Your task to perform on an android device: Empty the shopping cart on bestbuy. Search for "lenovo thinkpad" on bestbuy, select the first entry, add it to the cart, then select checkout. Image 0: 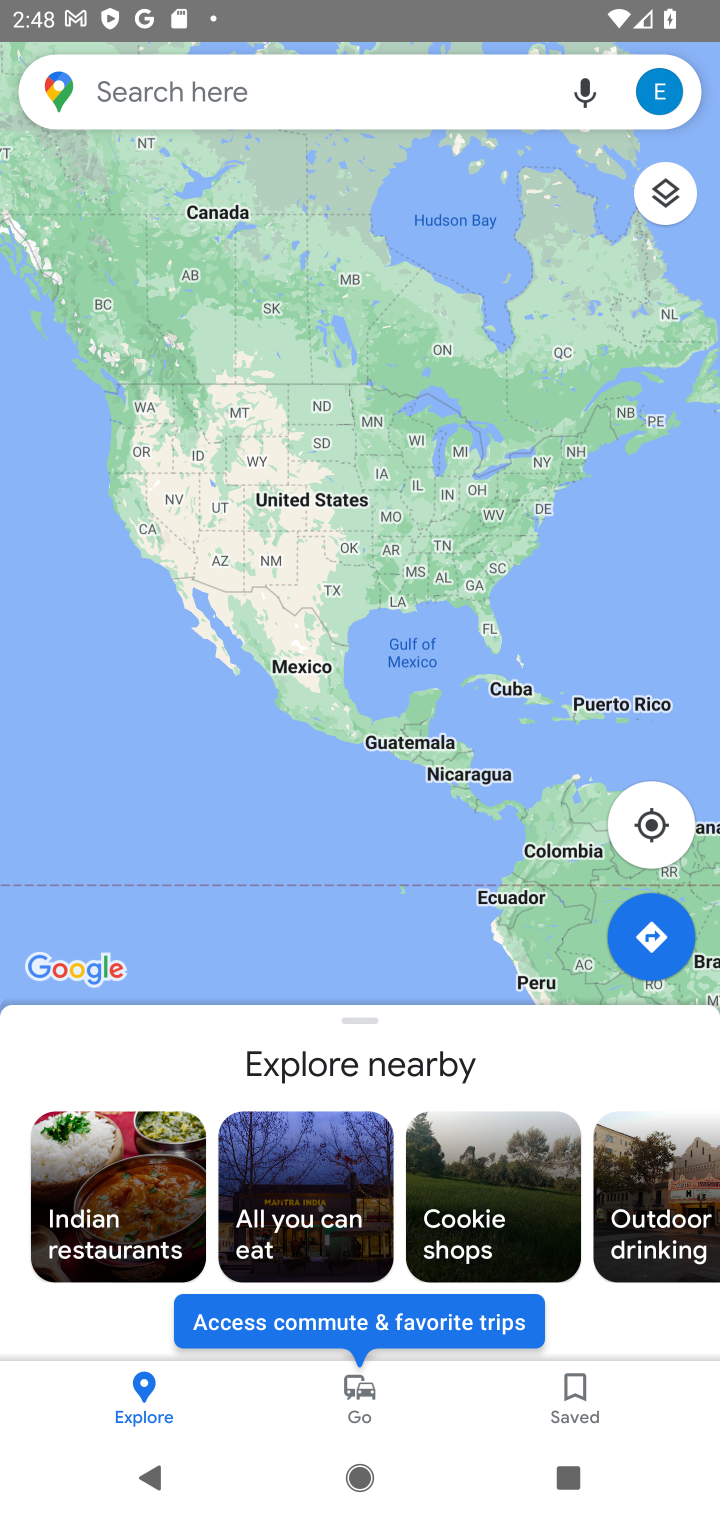
Step 0: press home button
Your task to perform on an android device: Empty the shopping cart on bestbuy. Search for "lenovo thinkpad" on bestbuy, select the first entry, add it to the cart, then select checkout. Image 1: 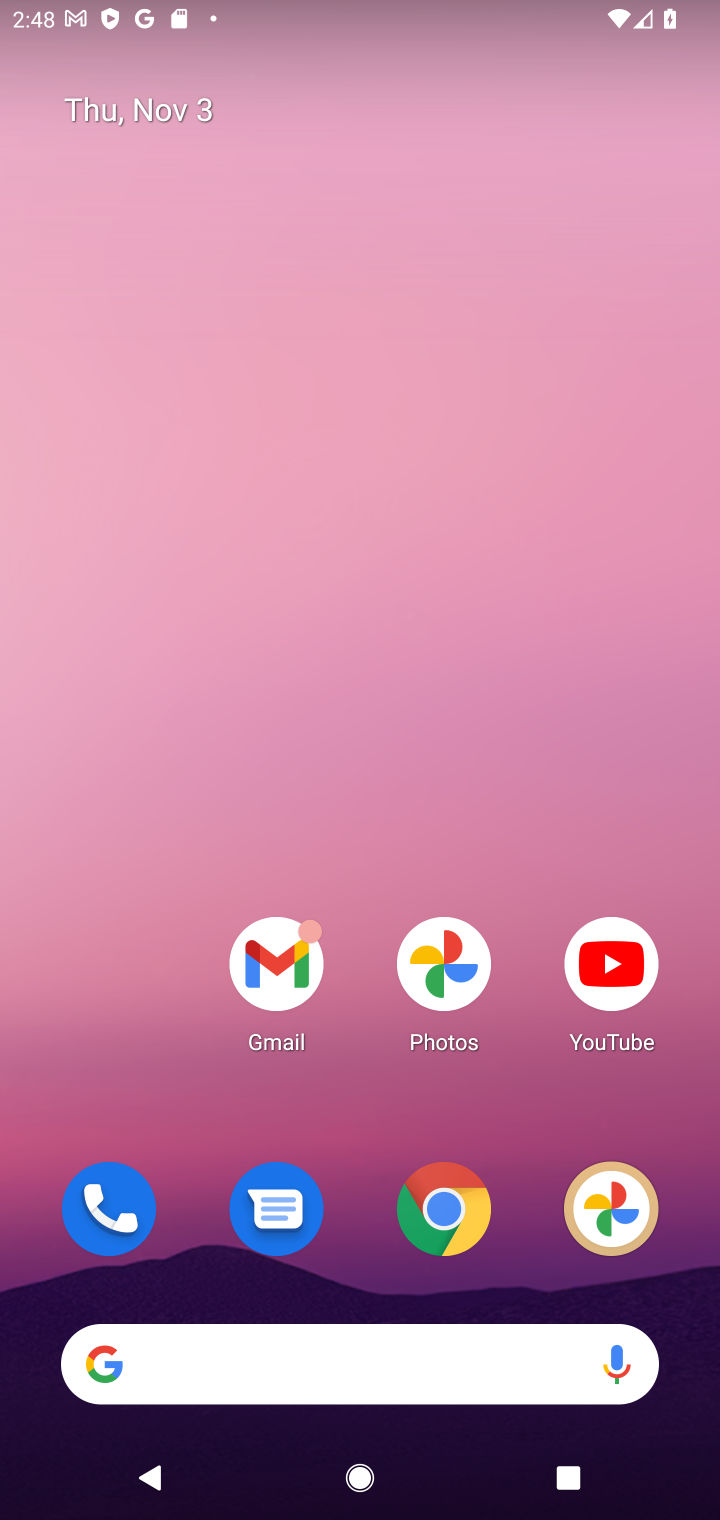
Step 1: click (386, 1247)
Your task to perform on an android device: Empty the shopping cart on bestbuy. Search for "lenovo thinkpad" on bestbuy, select the first entry, add it to the cart, then select checkout. Image 2: 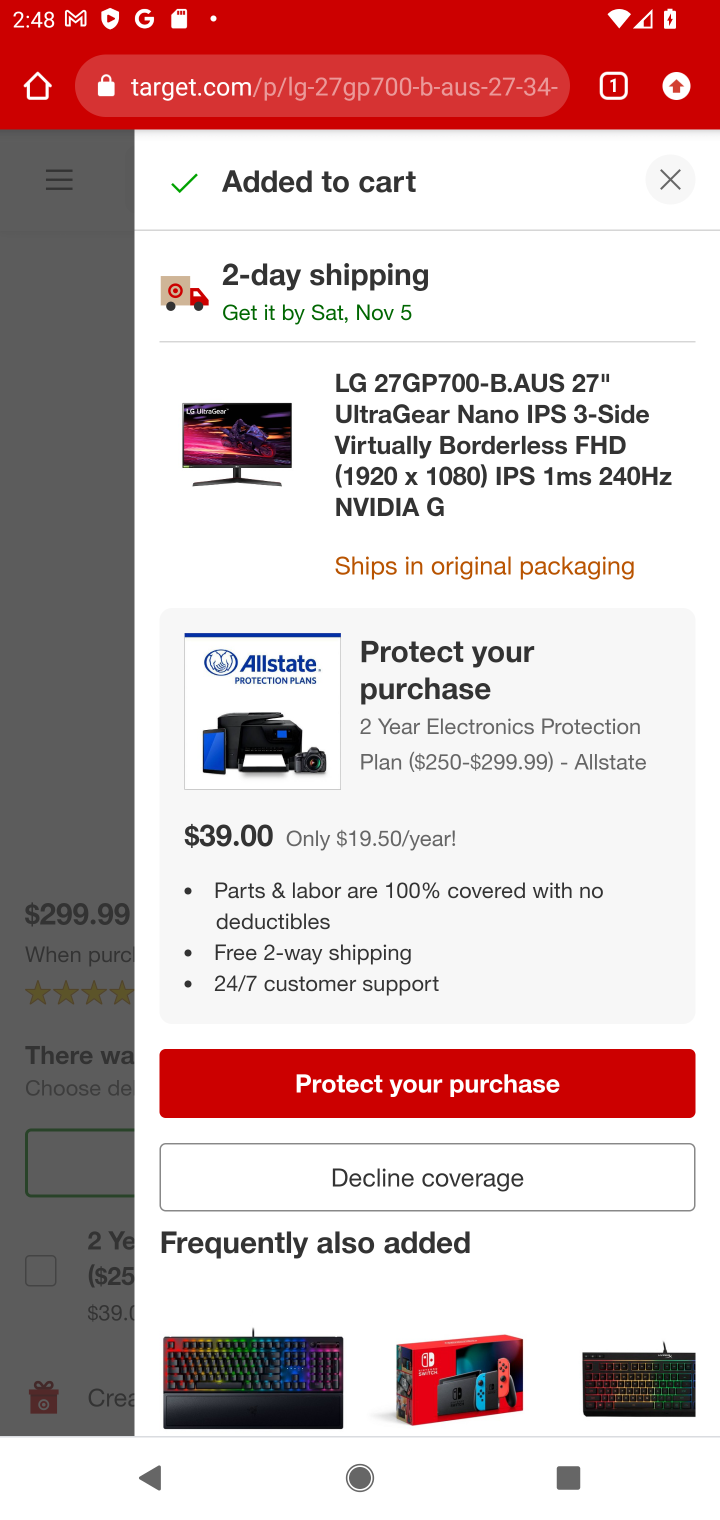
Step 2: click (390, 104)
Your task to perform on an android device: Empty the shopping cart on bestbuy. Search for "lenovo thinkpad" on bestbuy, select the first entry, add it to the cart, then select checkout. Image 3: 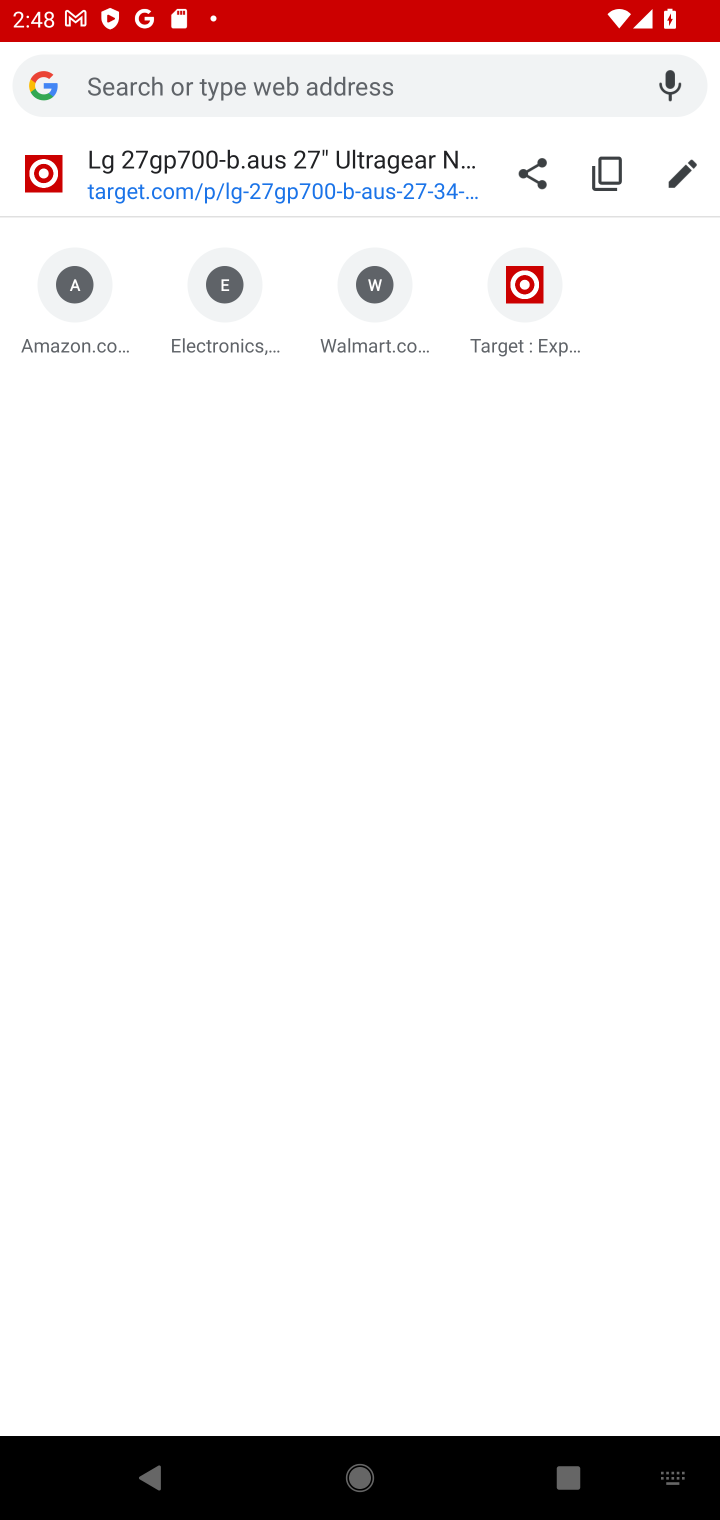
Step 3: type "bestbuy"
Your task to perform on an android device: Empty the shopping cart on bestbuy. Search for "lenovo thinkpad" on bestbuy, select the first entry, add it to the cart, then select checkout. Image 4: 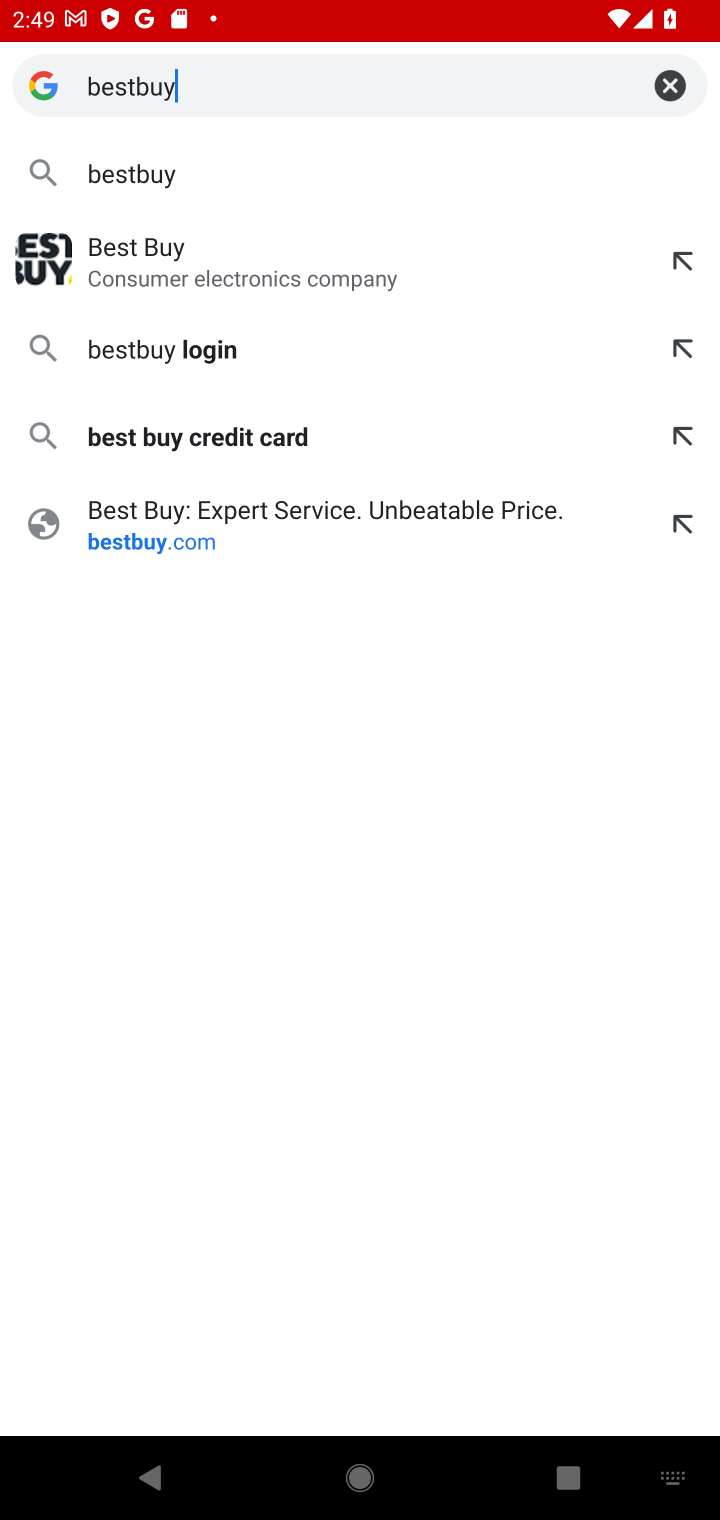
Step 4: click (337, 519)
Your task to perform on an android device: Empty the shopping cart on bestbuy. Search for "lenovo thinkpad" on bestbuy, select the first entry, add it to the cart, then select checkout. Image 5: 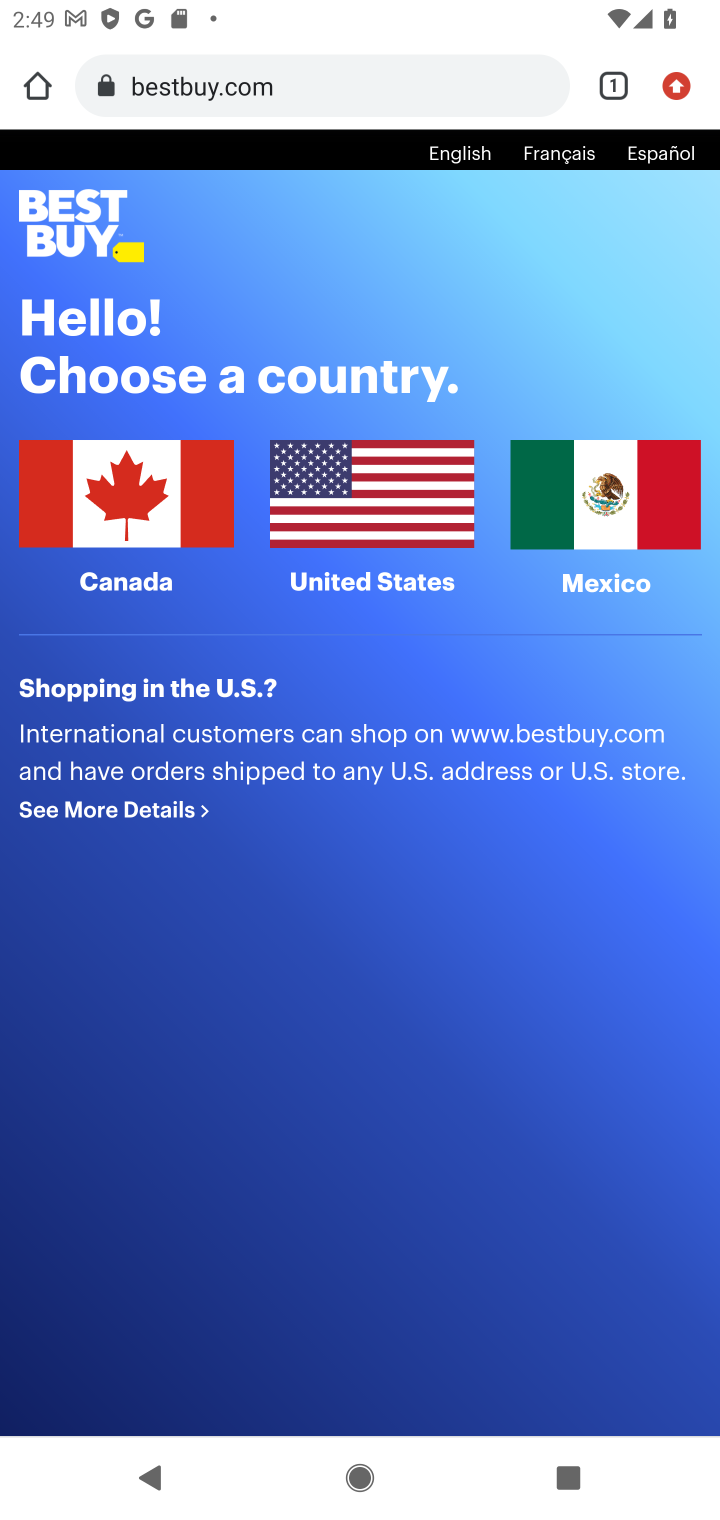
Step 5: click (316, 82)
Your task to perform on an android device: Empty the shopping cart on bestbuy. Search for "lenovo thinkpad" on bestbuy, select the first entry, add it to the cart, then select checkout. Image 6: 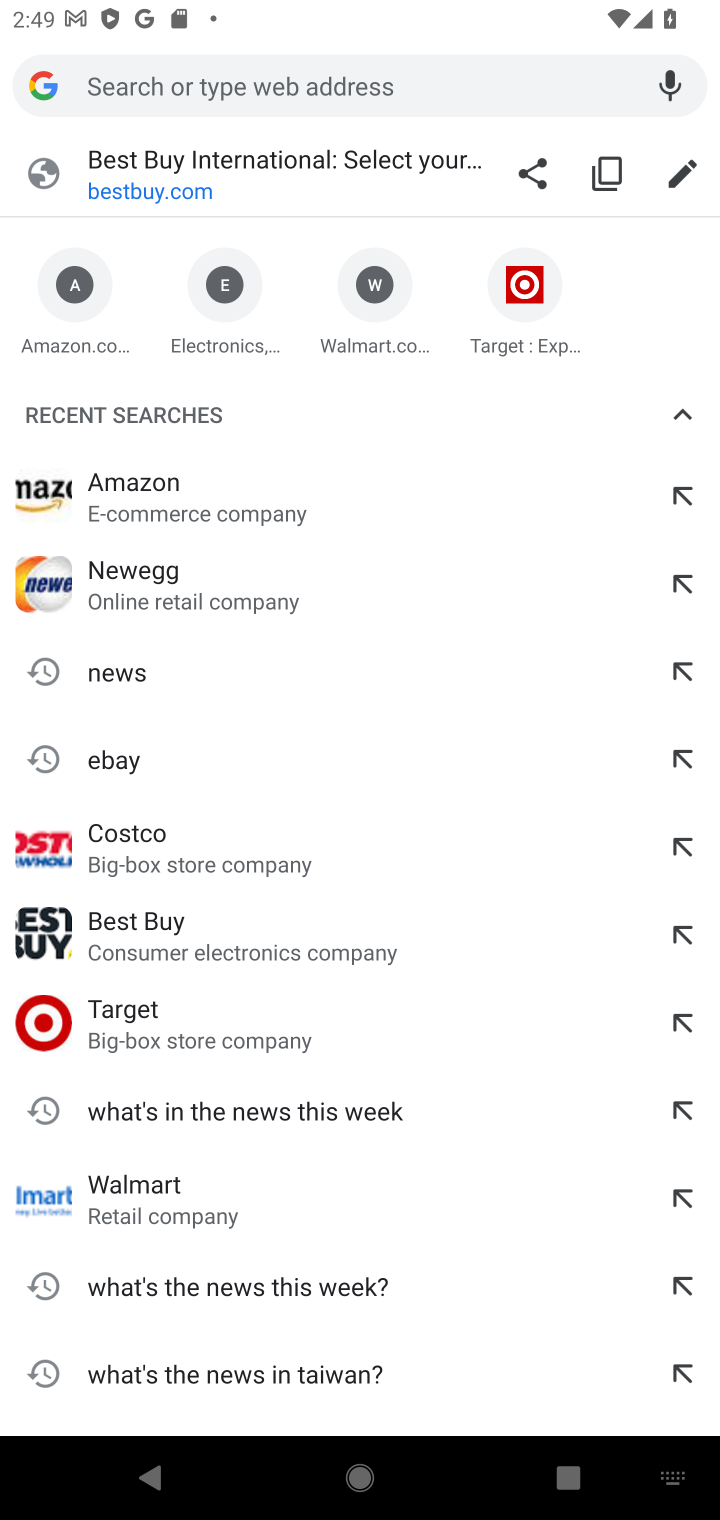
Step 6: click (208, 170)
Your task to perform on an android device: Empty the shopping cart on bestbuy. Search for "lenovo thinkpad" on bestbuy, select the first entry, add it to the cart, then select checkout. Image 7: 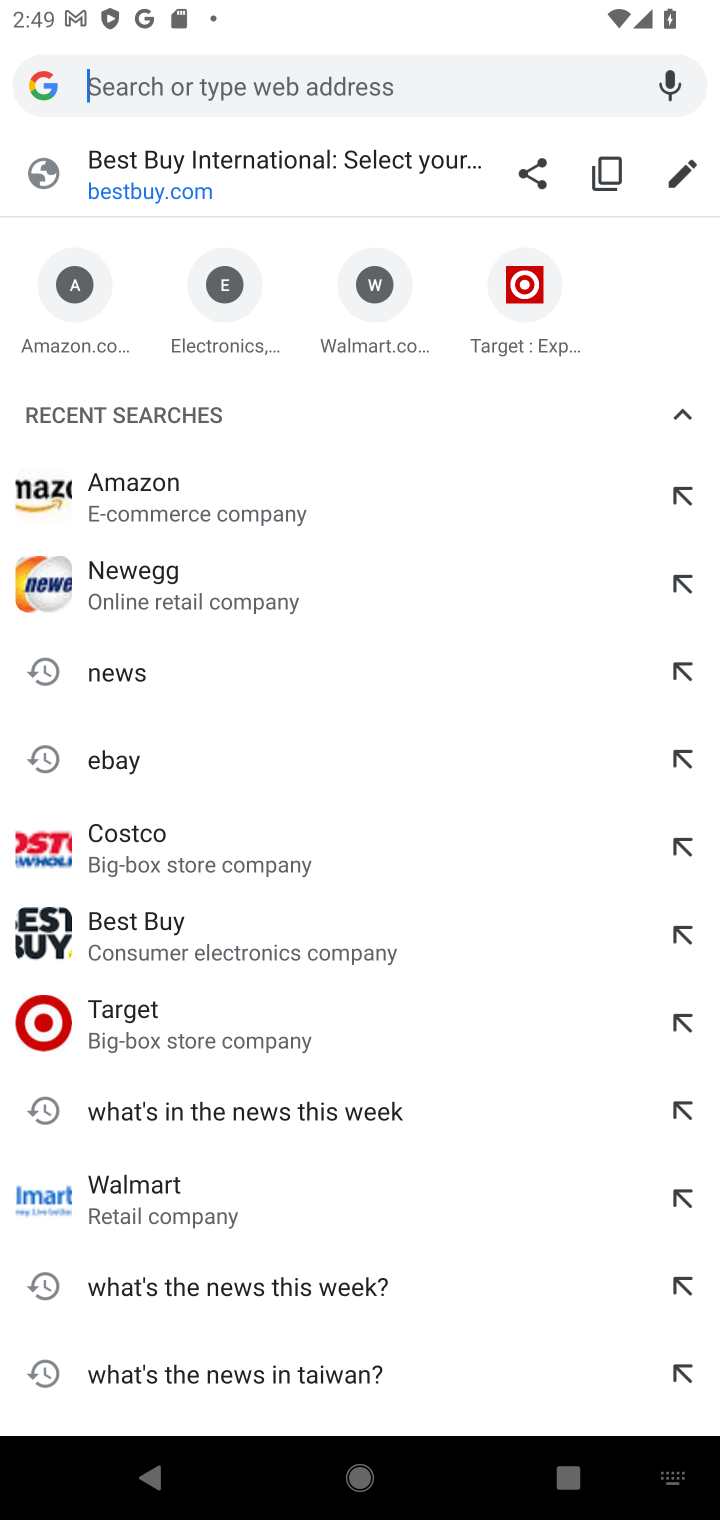
Step 7: click (189, 170)
Your task to perform on an android device: Empty the shopping cart on bestbuy. Search for "lenovo thinkpad" on bestbuy, select the first entry, add it to the cart, then select checkout. Image 8: 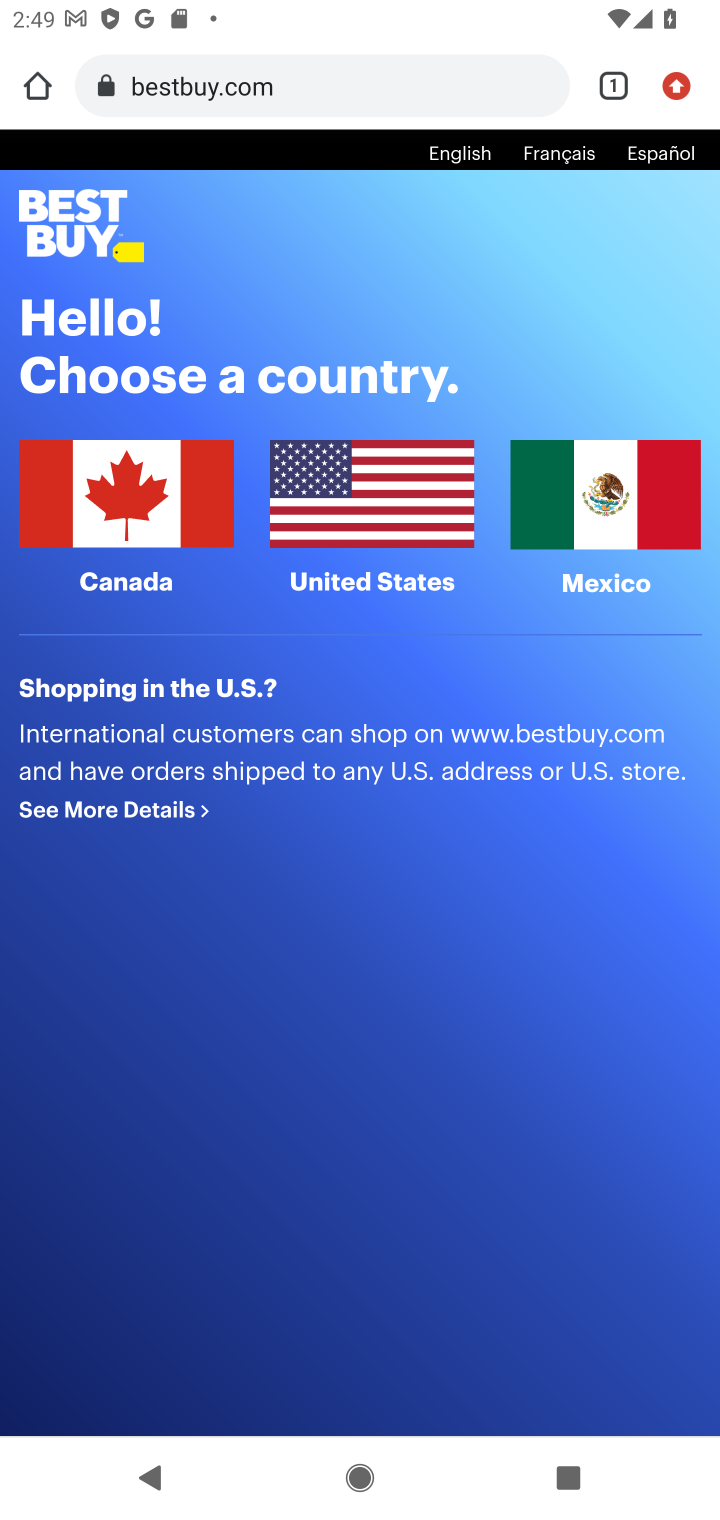
Step 8: click (337, 447)
Your task to perform on an android device: Empty the shopping cart on bestbuy. Search for "lenovo thinkpad" on bestbuy, select the first entry, add it to the cart, then select checkout. Image 9: 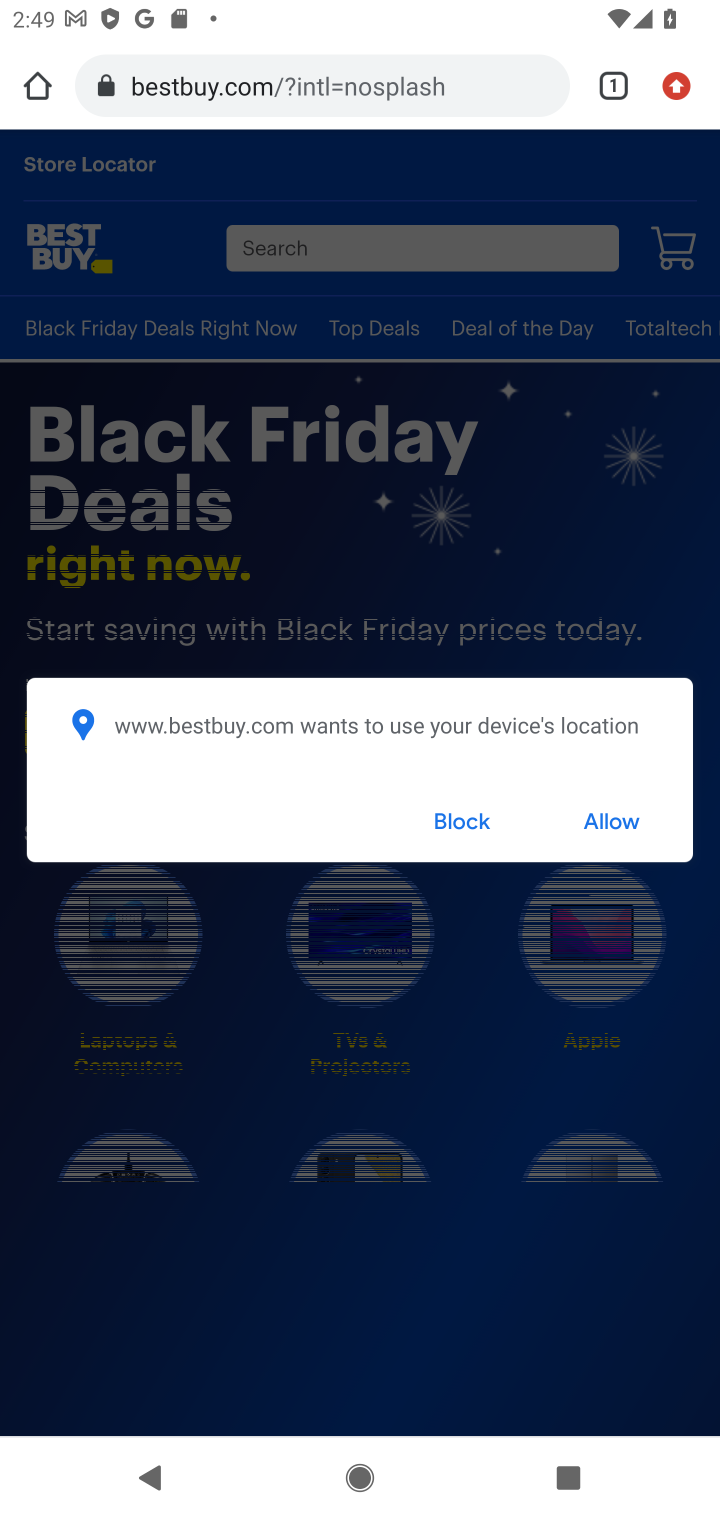
Step 9: click (612, 824)
Your task to perform on an android device: Empty the shopping cart on bestbuy. Search for "lenovo thinkpad" on bestbuy, select the first entry, add it to the cart, then select checkout. Image 10: 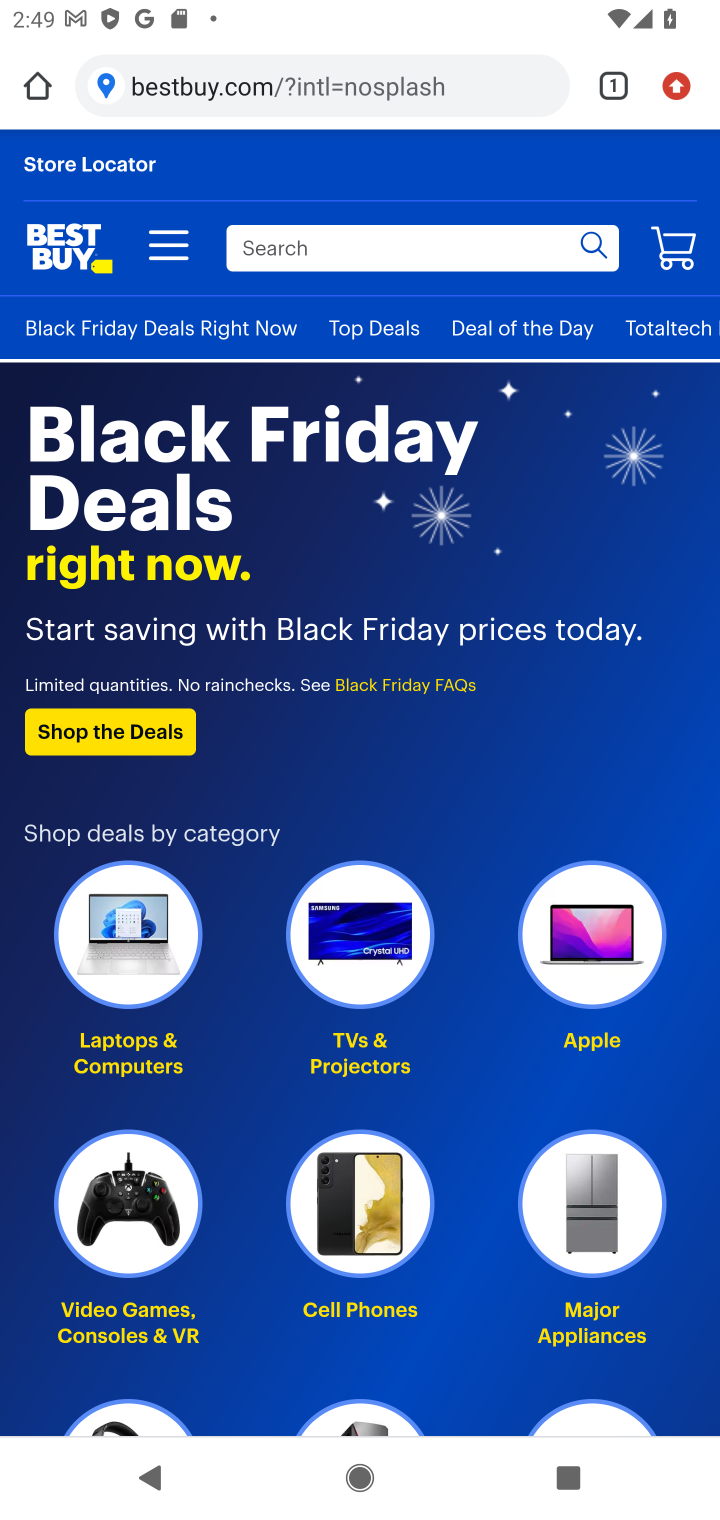
Step 10: click (367, 246)
Your task to perform on an android device: Empty the shopping cart on bestbuy. Search for "lenovo thinkpad" on bestbuy, select the first entry, add it to the cart, then select checkout. Image 11: 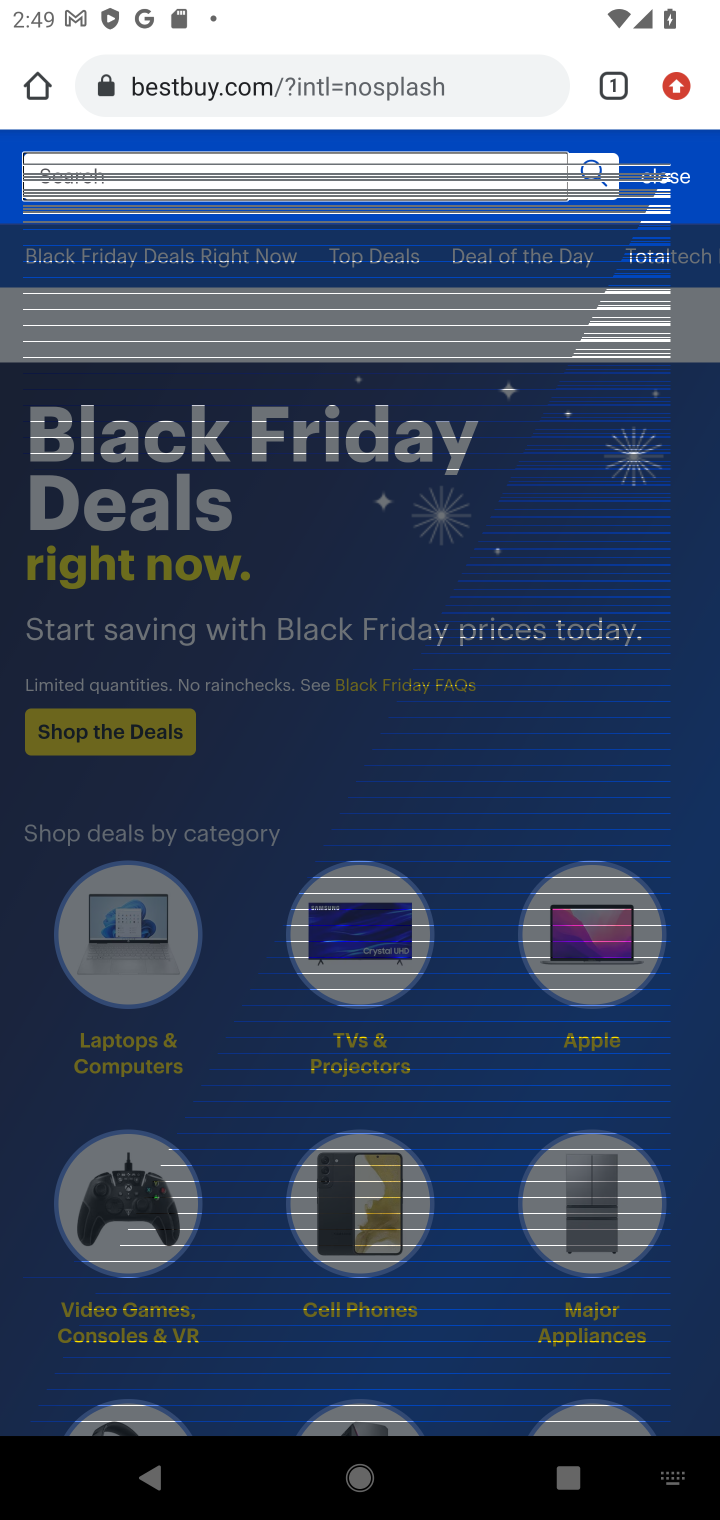
Step 11: type "lenovo thinkpad"
Your task to perform on an android device: Empty the shopping cart on bestbuy. Search for "lenovo thinkpad" on bestbuy, select the first entry, add it to the cart, then select checkout. Image 12: 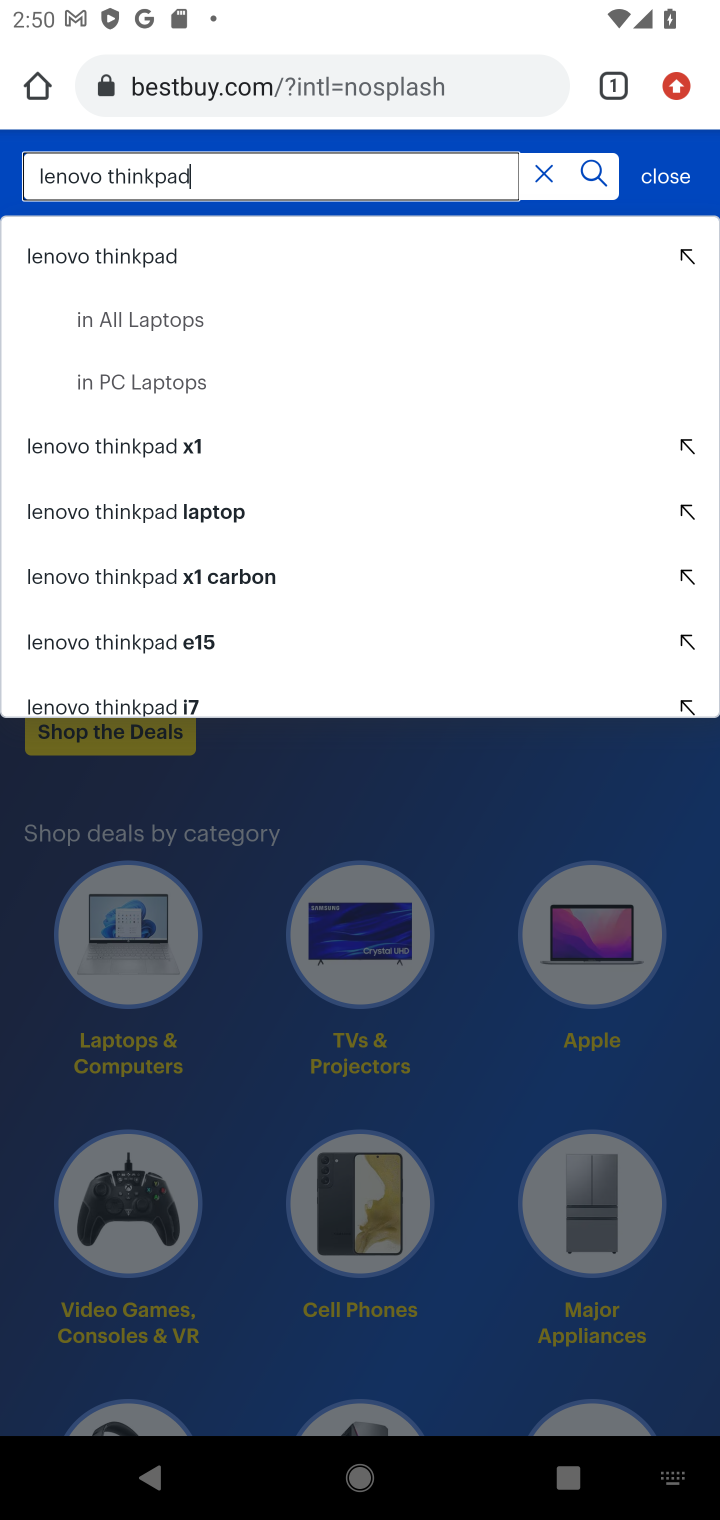
Step 12: press enter
Your task to perform on an android device: Empty the shopping cart on bestbuy. Search for "lenovo thinkpad" on bestbuy, select the first entry, add it to the cart, then select checkout. Image 13: 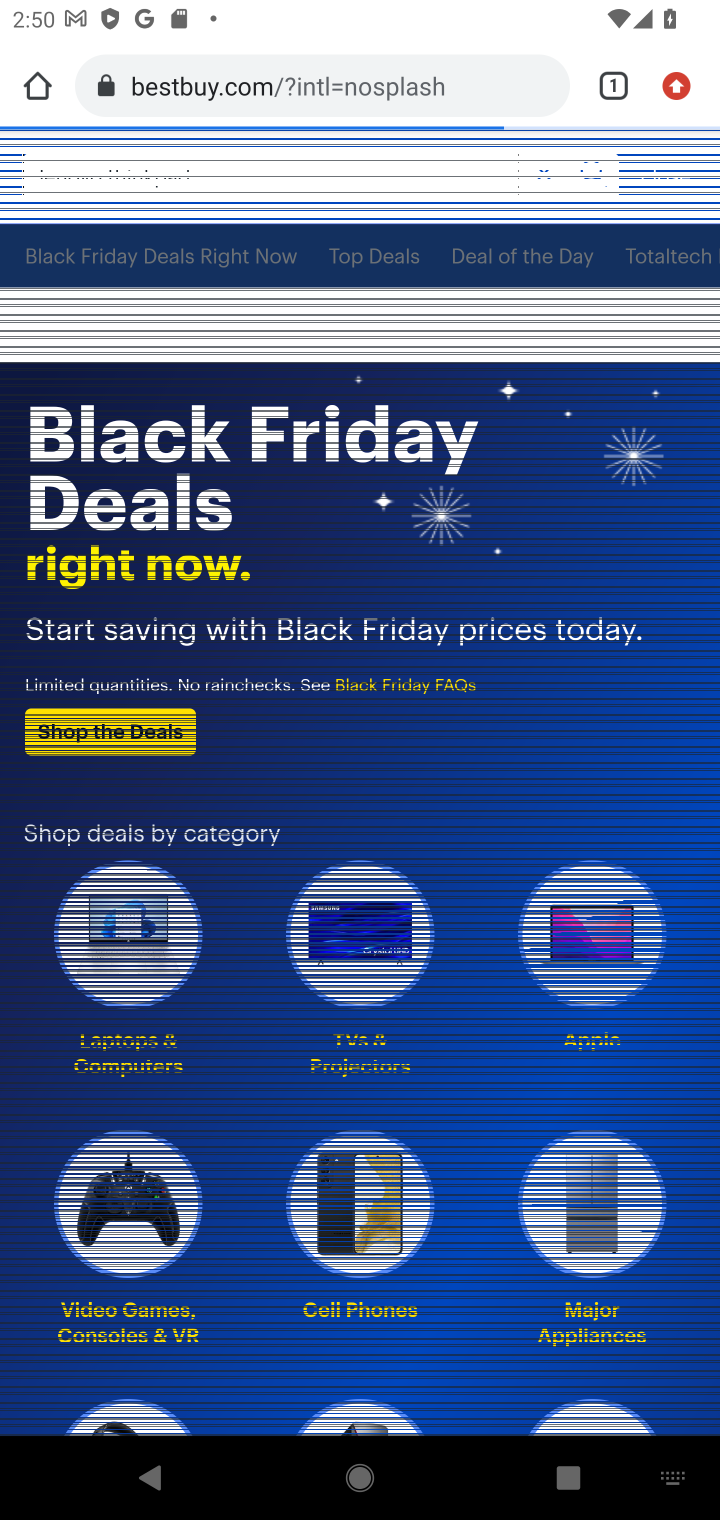
Step 13: press enter
Your task to perform on an android device: Empty the shopping cart on bestbuy. Search for "lenovo thinkpad" on bestbuy, select the first entry, add it to the cart, then select checkout. Image 14: 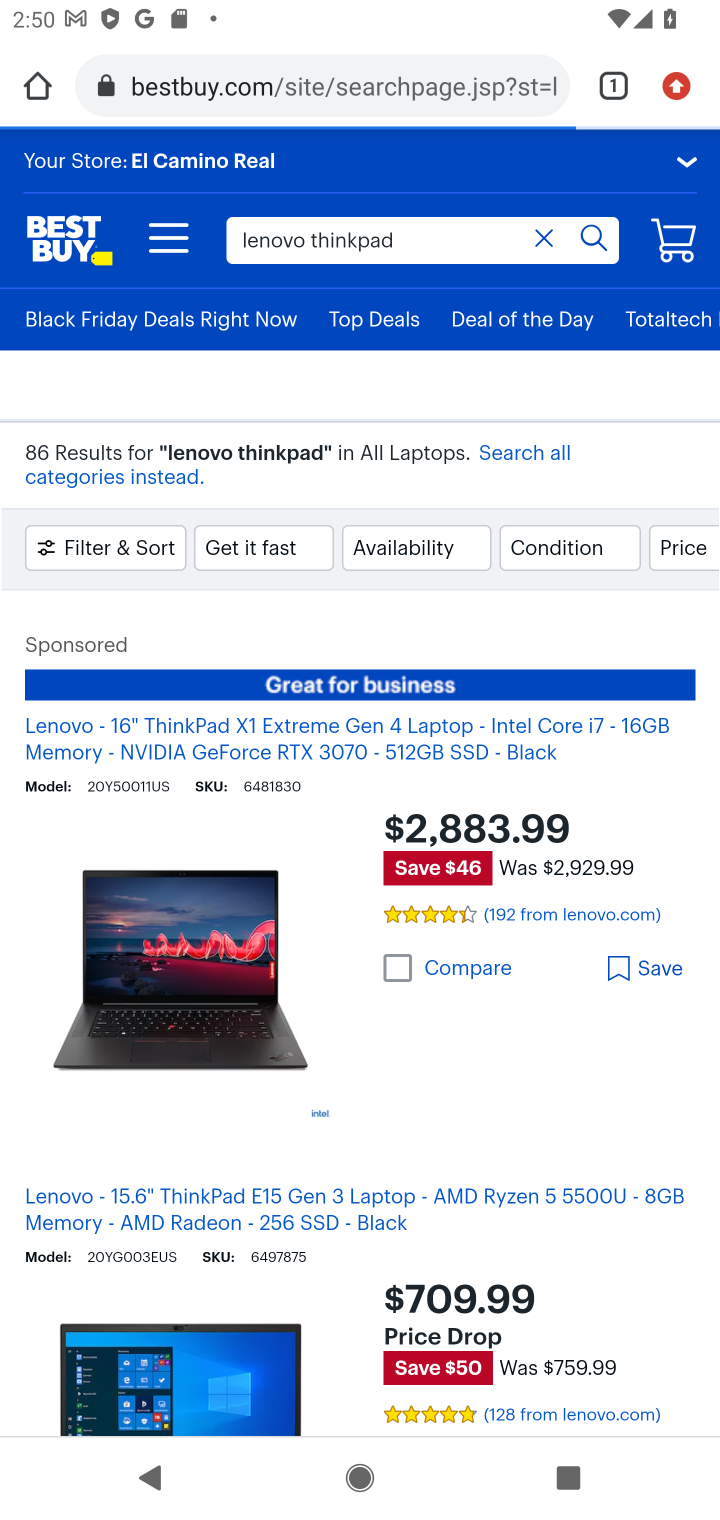
Step 14: click (356, 946)
Your task to perform on an android device: Empty the shopping cart on bestbuy. Search for "lenovo thinkpad" on bestbuy, select the first entry, add it to the cart, then select checkout. Image 15: 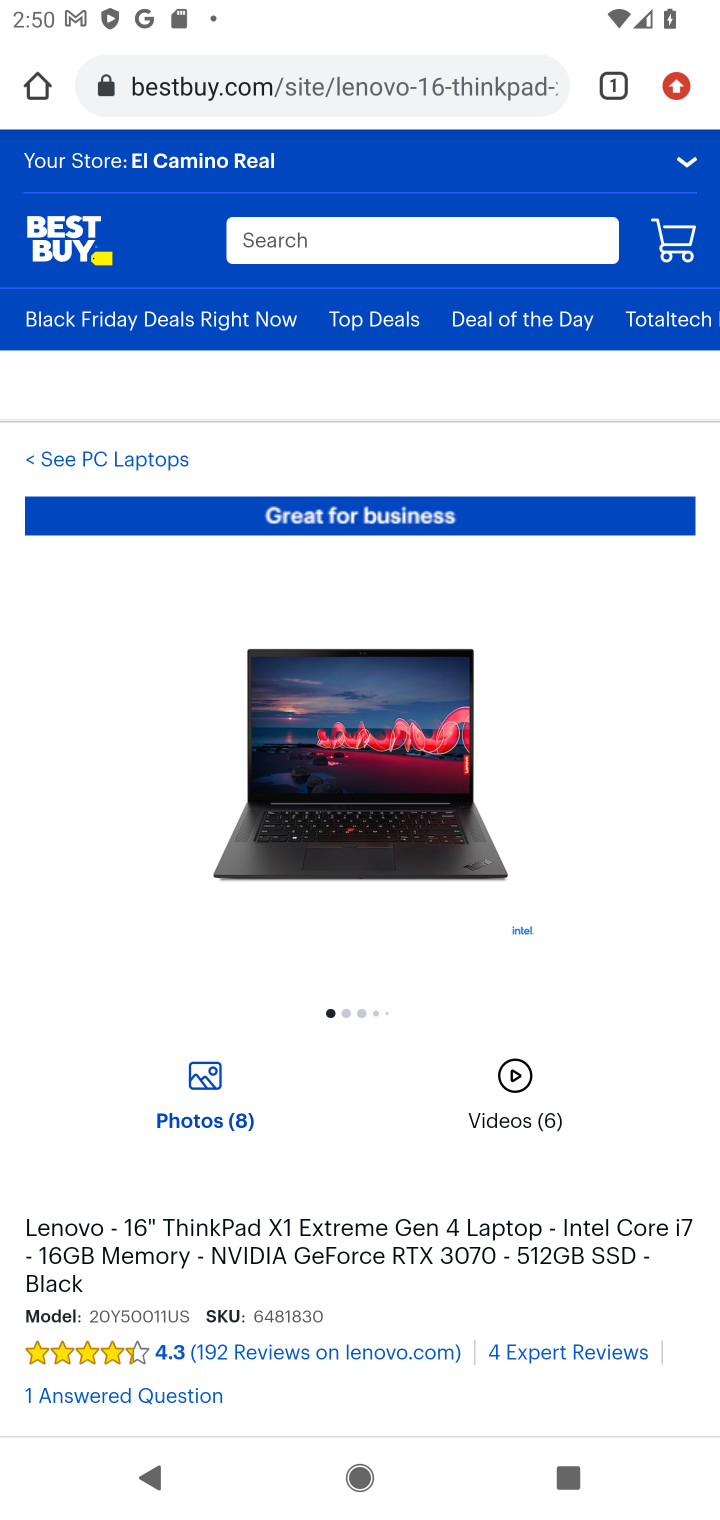
Step 15: drag from (604, 1351) to (460, 413)
Your task to perform on an android device: Empty the shopping cart on bestbuy. Search for "lenovo thinkpad" on bestbuy, select the first entry, add it to the cart, then select checkout. Image 16: 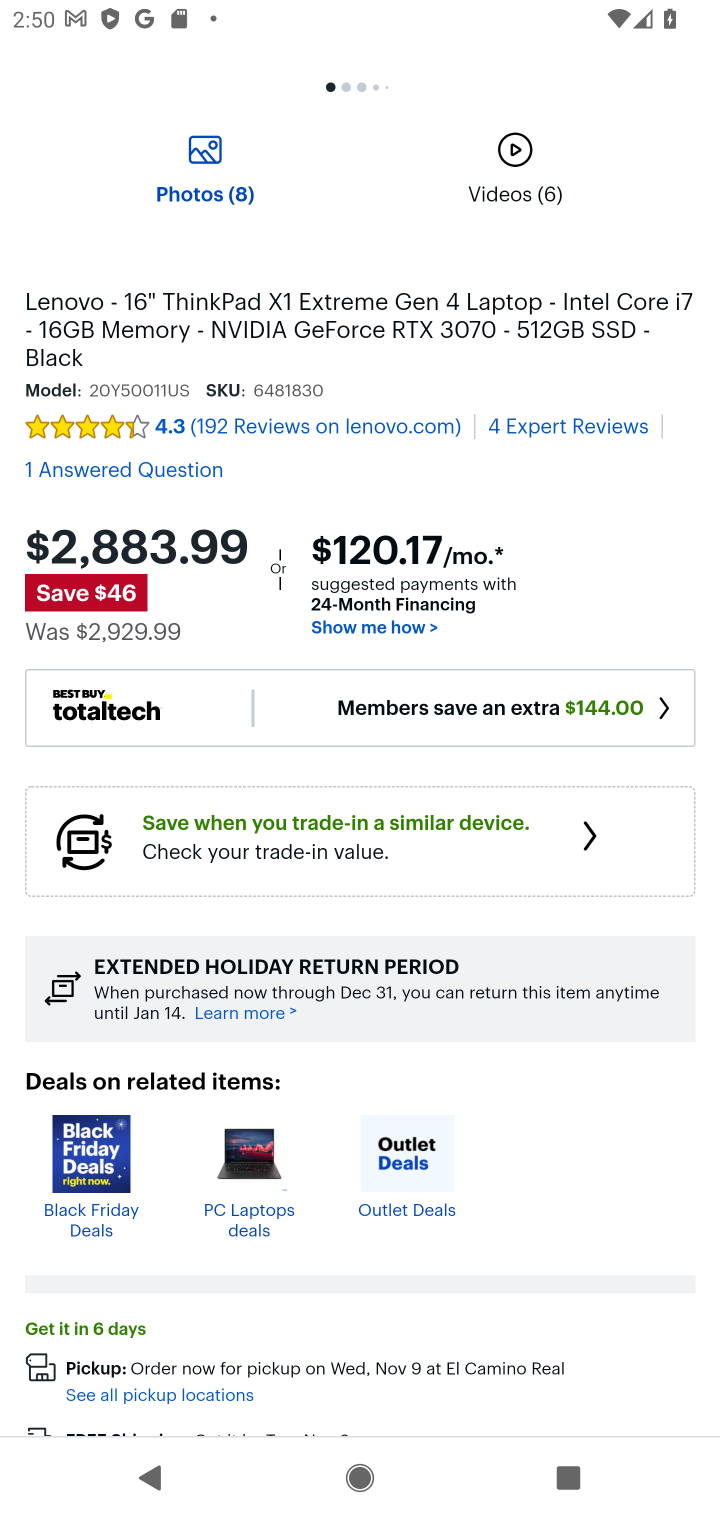
Step 16: drag from (560, 1317) to (466, 291)
Your task to perform on an android device: Empty the shopping cart on bestbuy. Search for "lenovo thinkpad" on bestbuy, select the first entry, add it to the cart, then select checkout. Image 17: 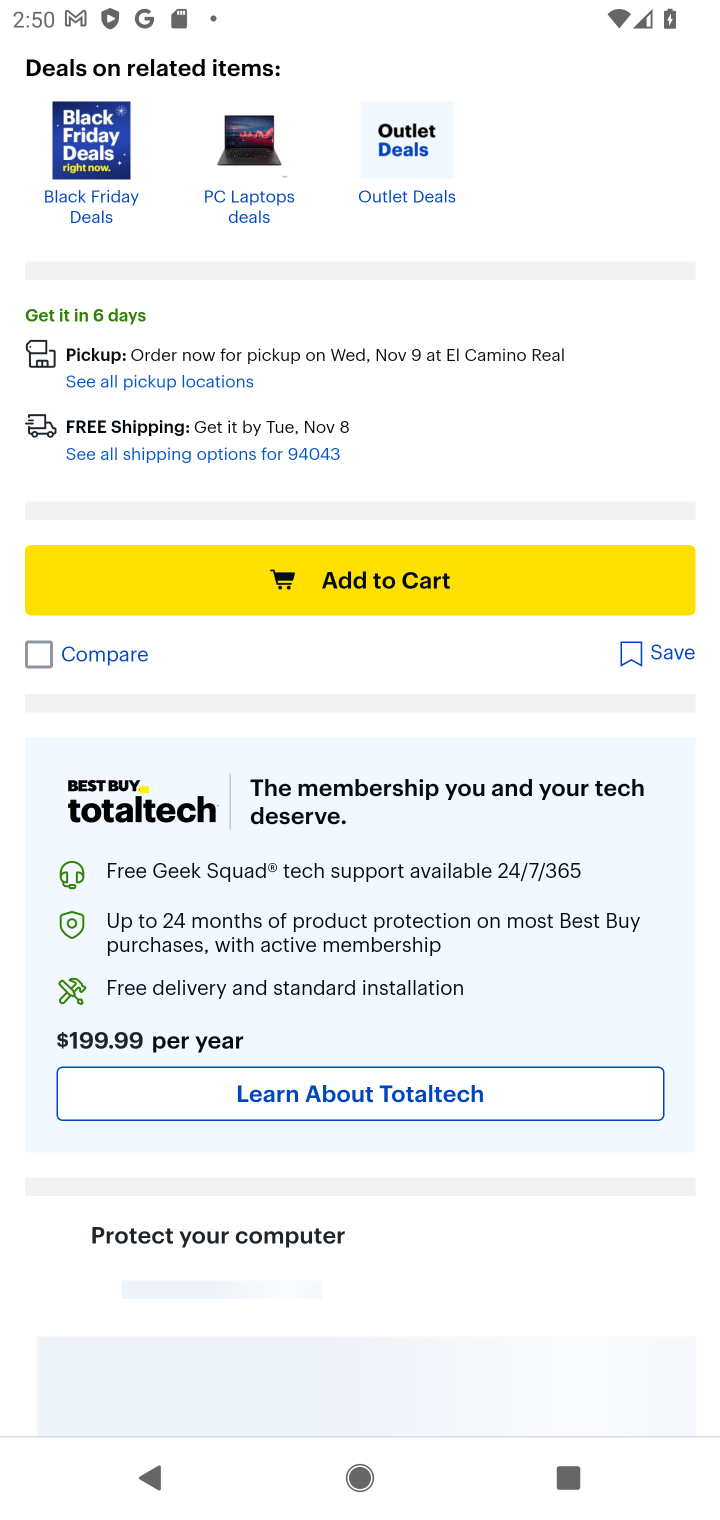
Step 17: click (415, 605)
Your task to perform on an android device: Empty the shopping cart on bestbuy. Search for "lenovo thinkpad" on bestbuy, select the first entry, add it to the cart, then select checkout. Image 18: 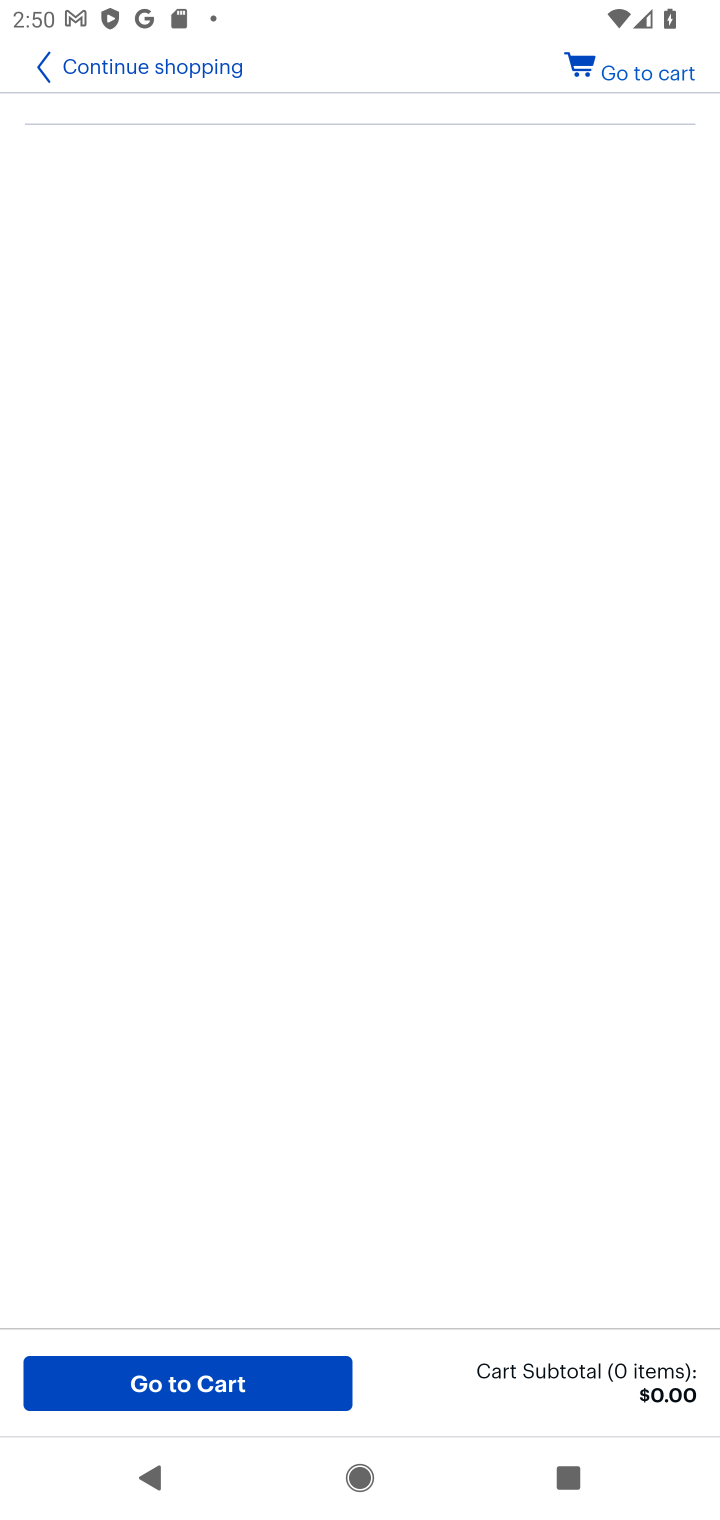
Step 18: drag from (557, 264) to (527, 1049)
Your task to perform on an android device: Empty the shopping cart on bestbuy. Search for "lenovo thinkpad" on bestbuy, select the first entry, add it to the cart, then select checkout. Image 19: 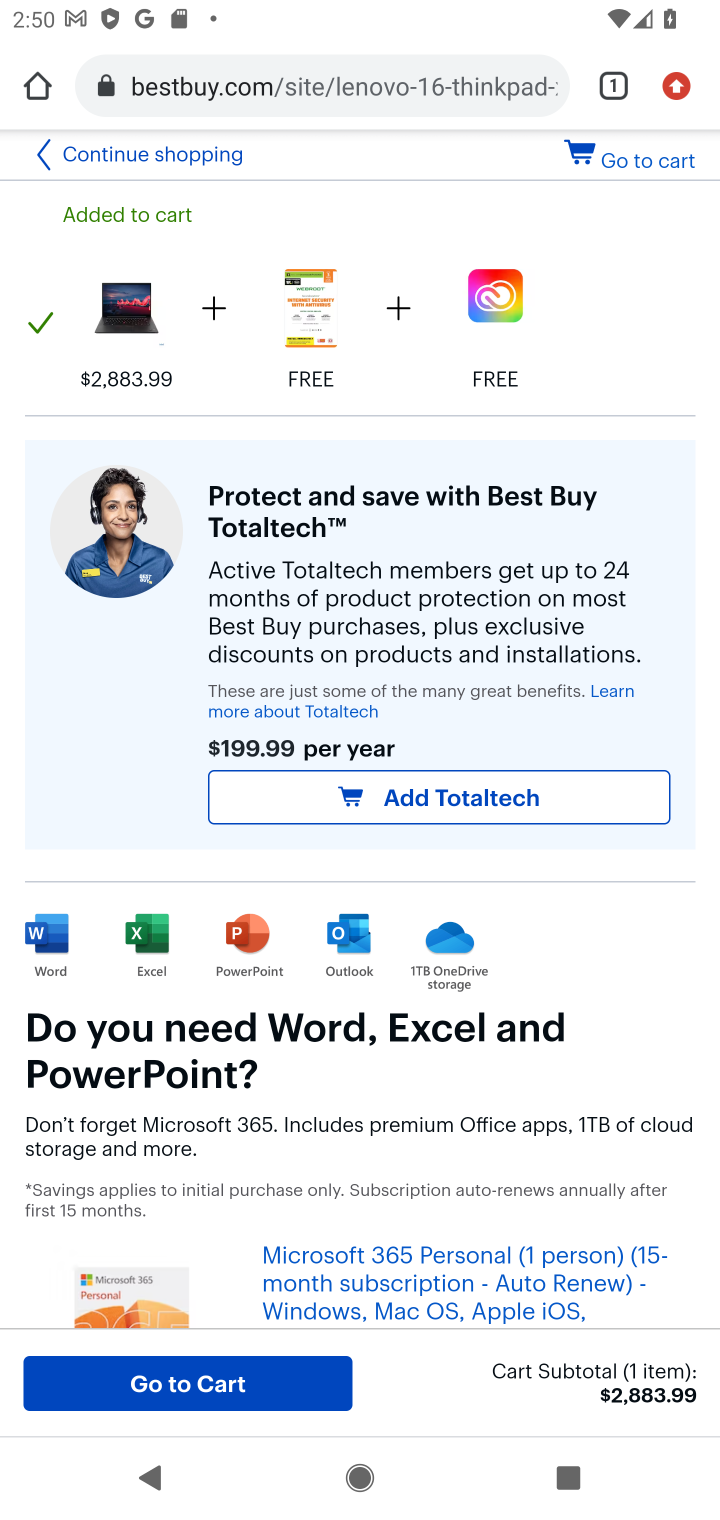
Step 19: click (630, 160)
Your task to perform on an android device: Empty the shopping cart on bestbuy. Search for "lenovo thinkpad" on bestbuy, select the first entry, add it to the cart, then select checkout. Image 20: 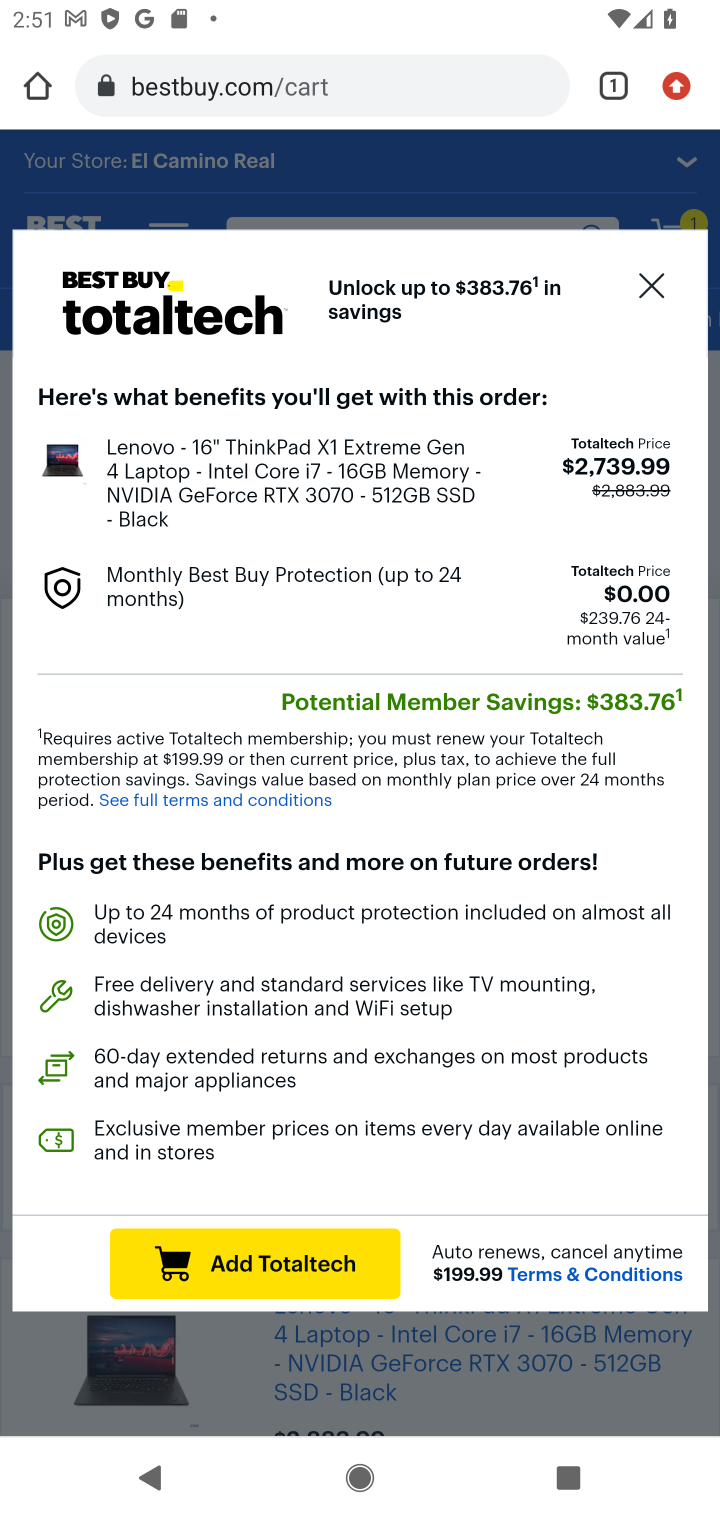
Step 20: click (641, 280)
Your task to perform on an android device: Empty the shopping cart on bestbuy. Search for "lenovo thinkpad" on bestbuy, select the first entry, add it to the cart, then select checkout. Image 21: 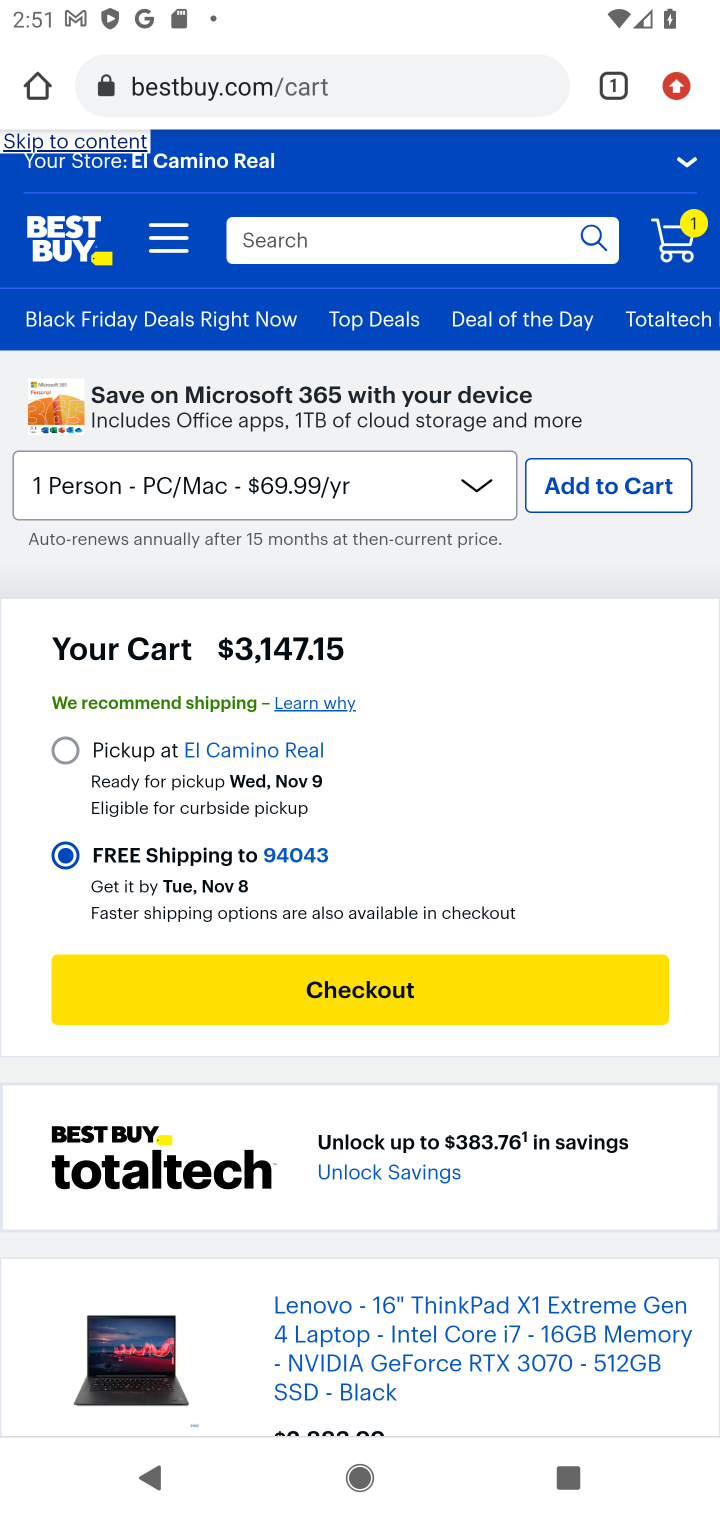
Step 21: click (329, 985)
Your task to perform on an android device: Empty the shopping cart on bestbuy. Search for "lenovo thinkpad" on bestbuy, select the first entry, add it to the cart, then select checkout. Image 22: 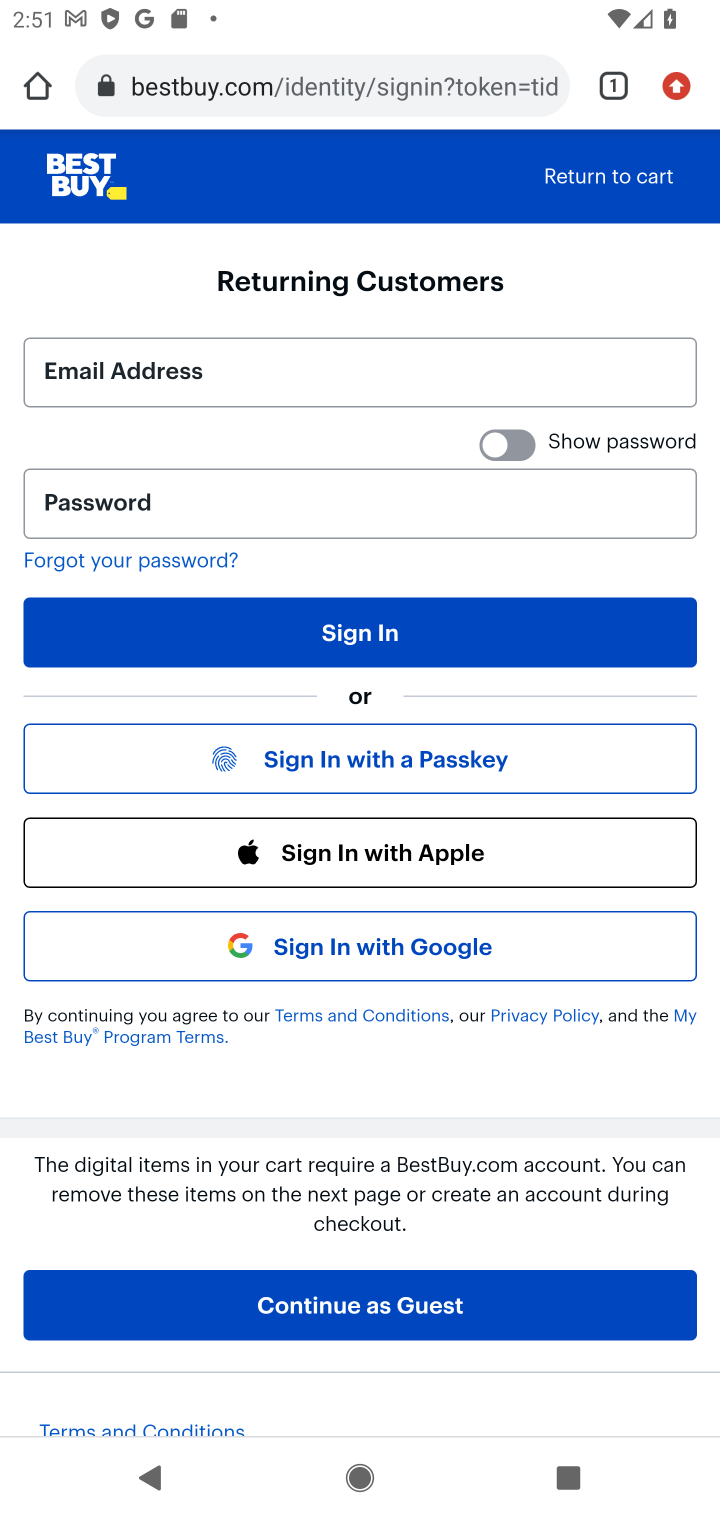
Step 22: task complete